Your task to perform on an android device: check storage Image 0: 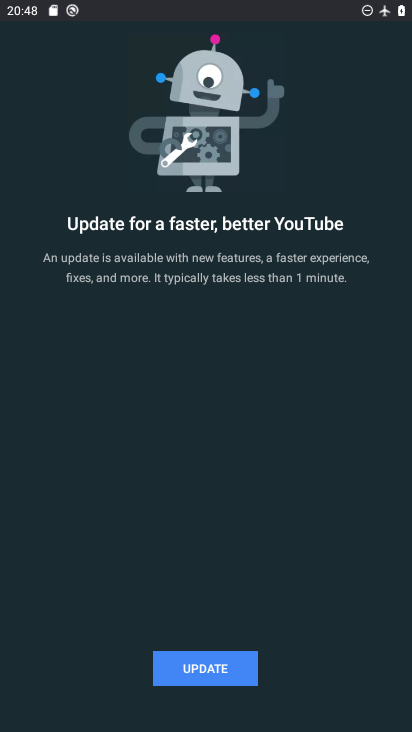
Step 0: press home button
Your task to perform on an android device: check storage Image 1: 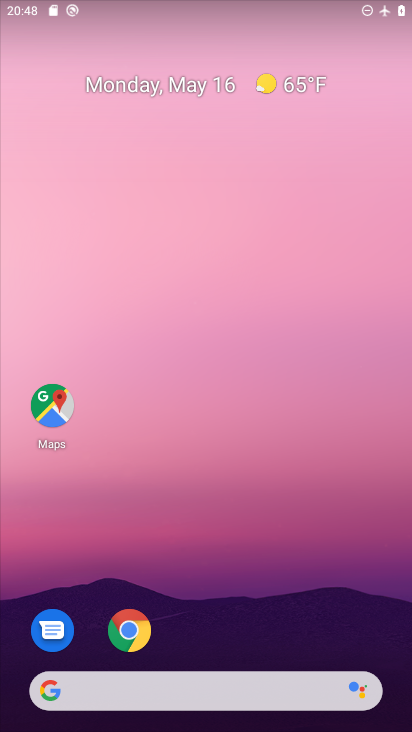
Step 1: drag from (222, 620) to (258, 55)
Your task to perform on an android device: check storage Image 2: 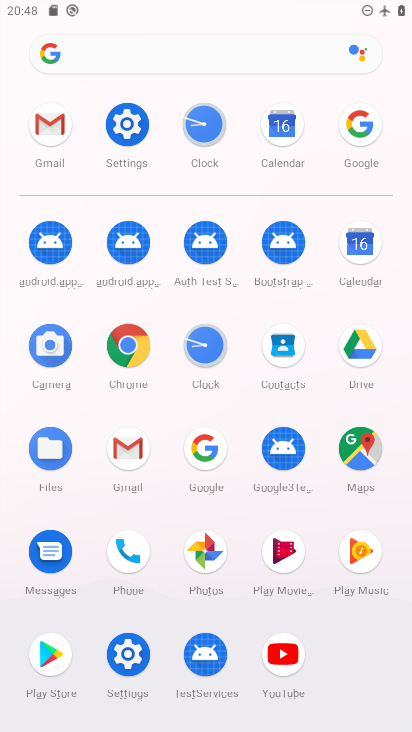
Step 2: click (133, 107)
Your task to perform on an android device: check storage Image 3: 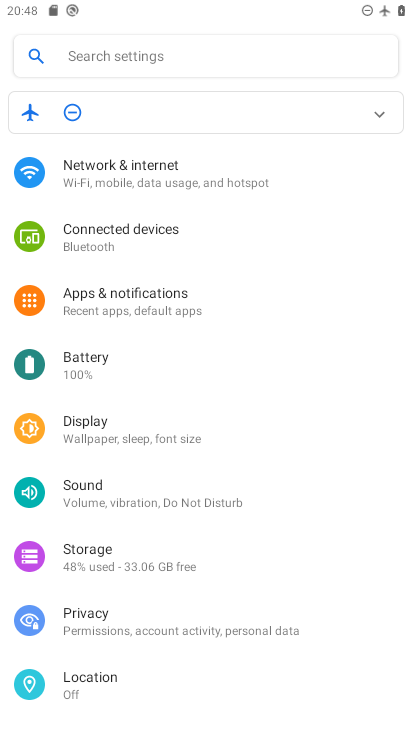
Step 3: click (120, 560)
Your task to perform on an android device: check storage Image 4: 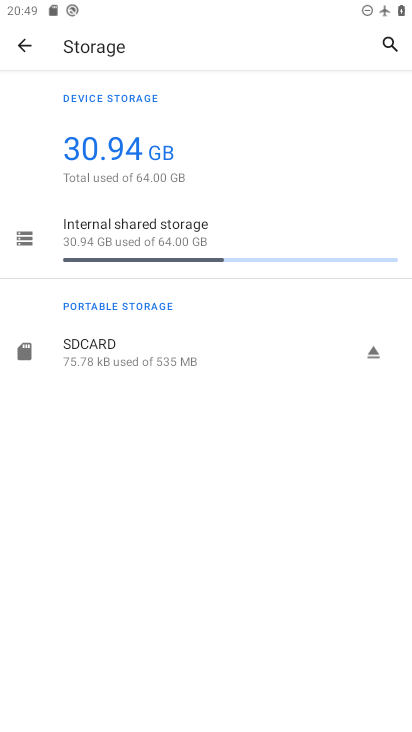
Step 4: task complete